Your task to perform on an android device: toggle javascript in the chrome app Image 0: 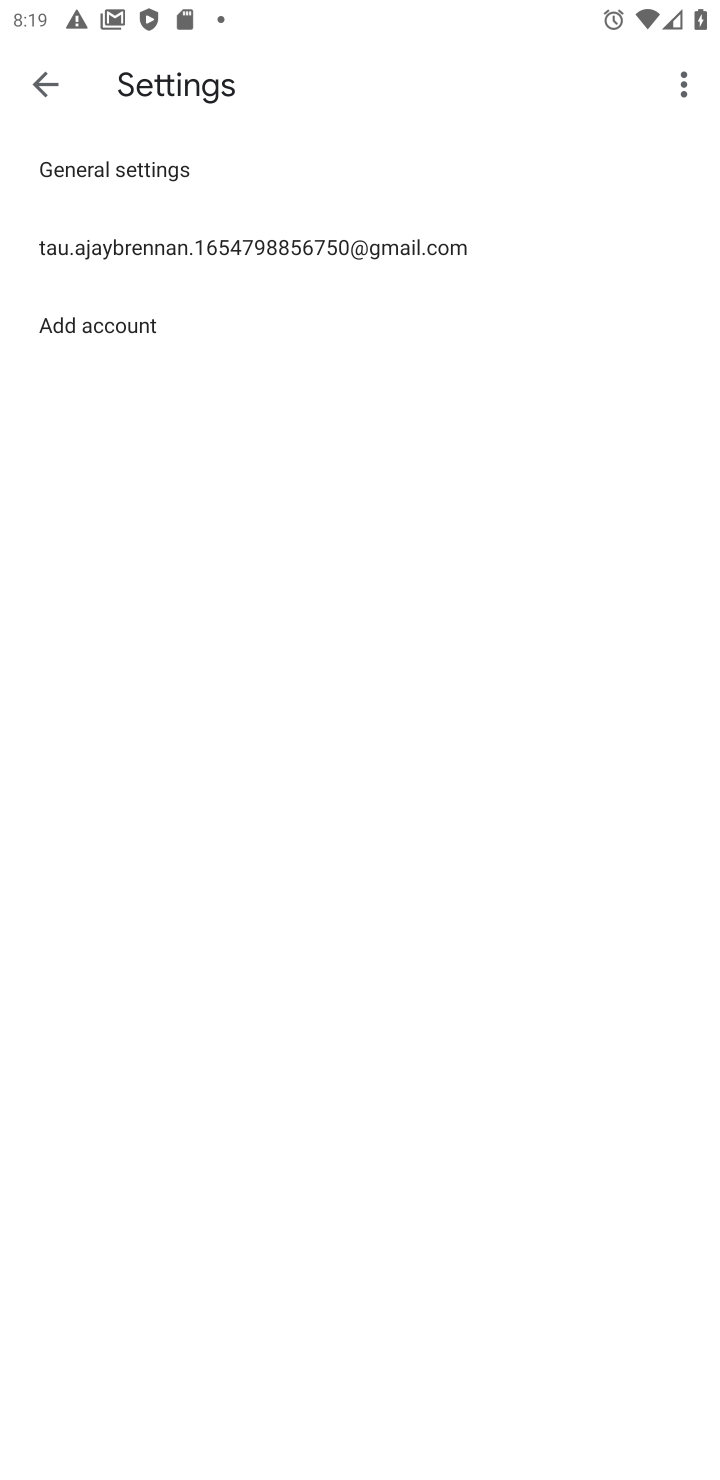
Step 0: press home button
Your task to perform on an android device: toggle javascript in the chrome app Image 1: 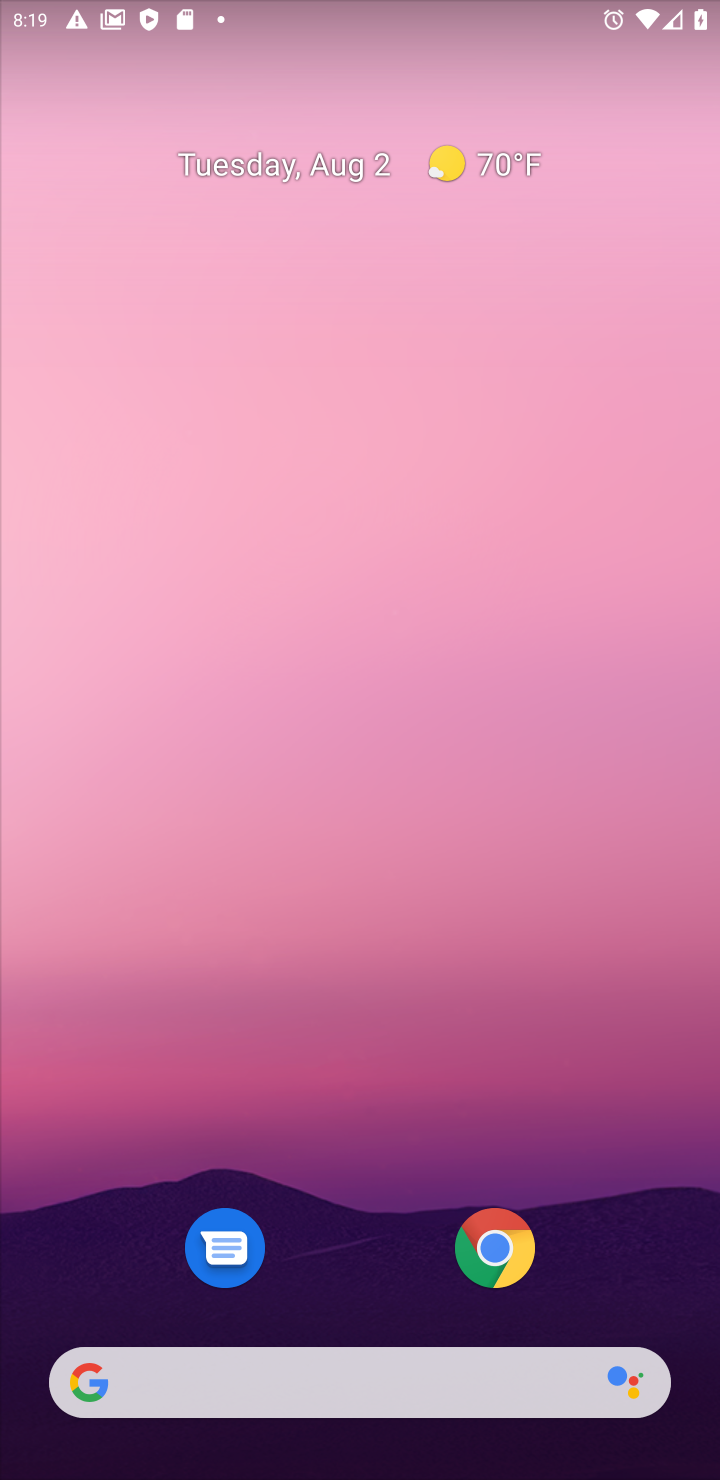
Step 1: drag from (399, 1099) to (516, 103)
Your task to perform on an android device: toggle javascript in the chrome app Image 2: 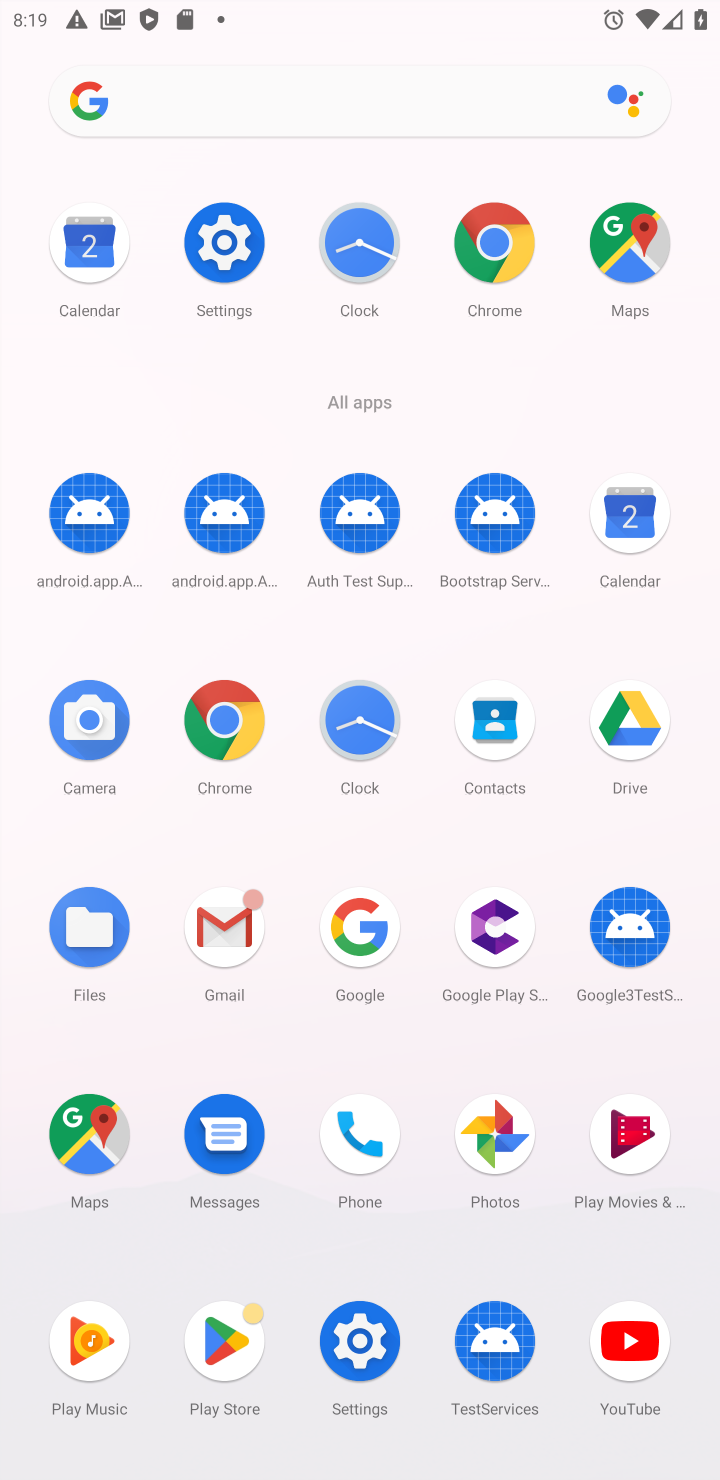
Step 2: click (232, 711)
Your task to perform on an android device: toggle javascript in the chrome app Image 3: 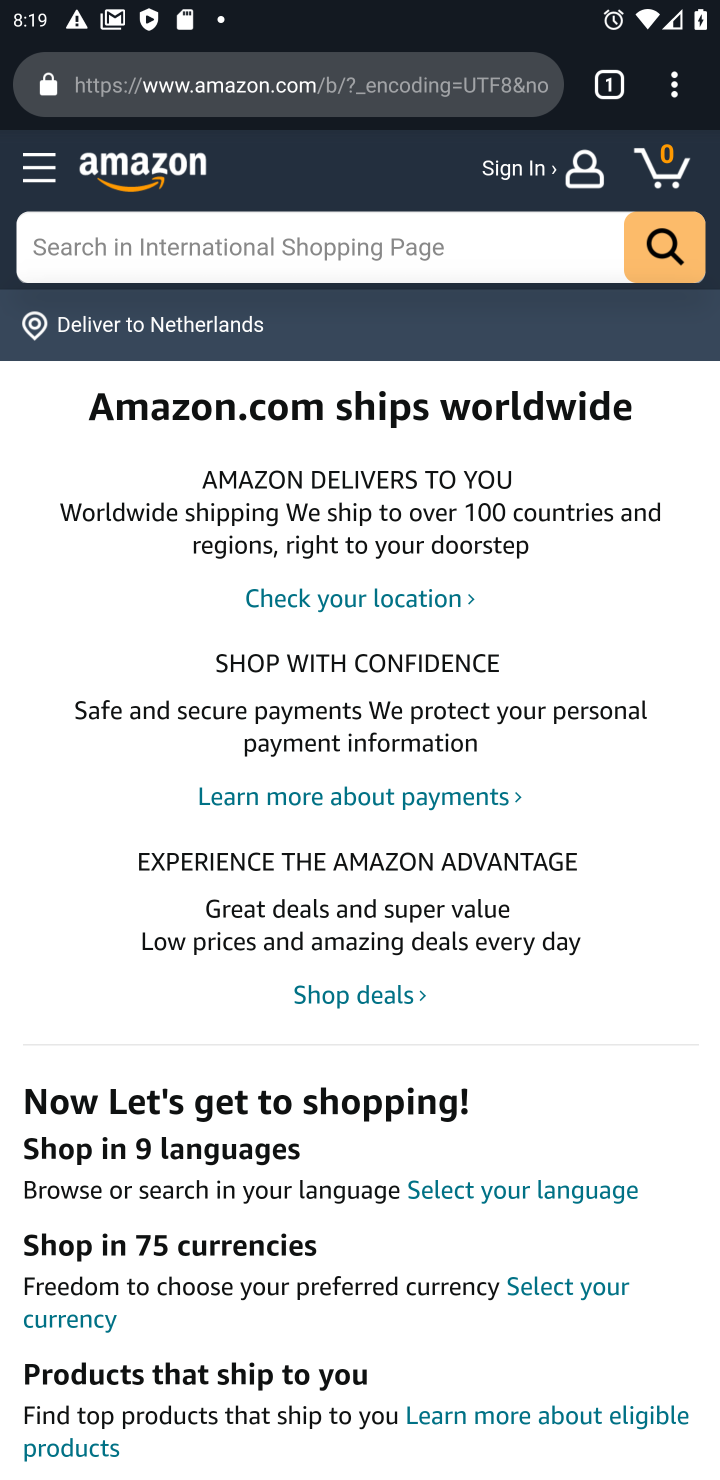
Step 3: drag from (671, 78) to (379, 1097)
Your task to perform on an android device: toggle javascript in the chrome app Image 4: 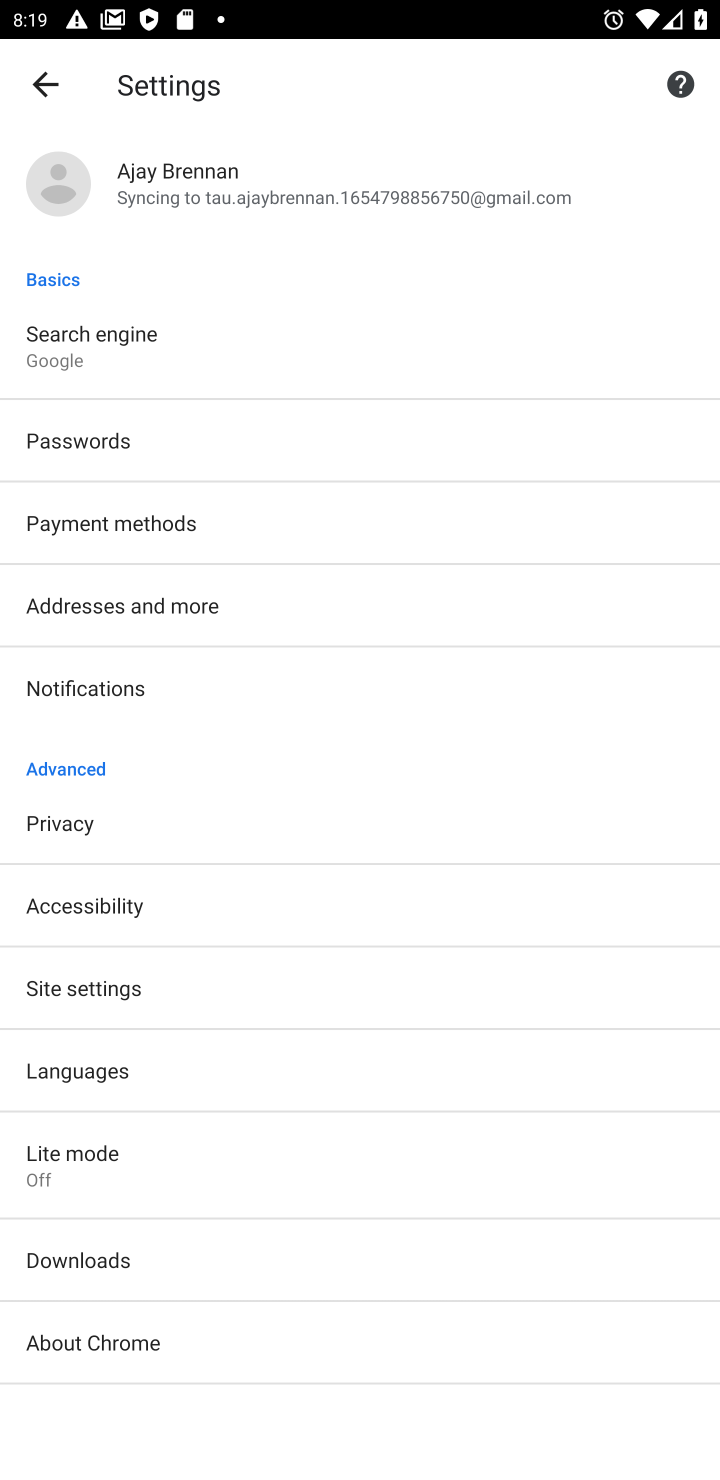
Step 4: click (114, 993)
Your task to perform on an android device: toggle javascript in the chrome app Image 5: 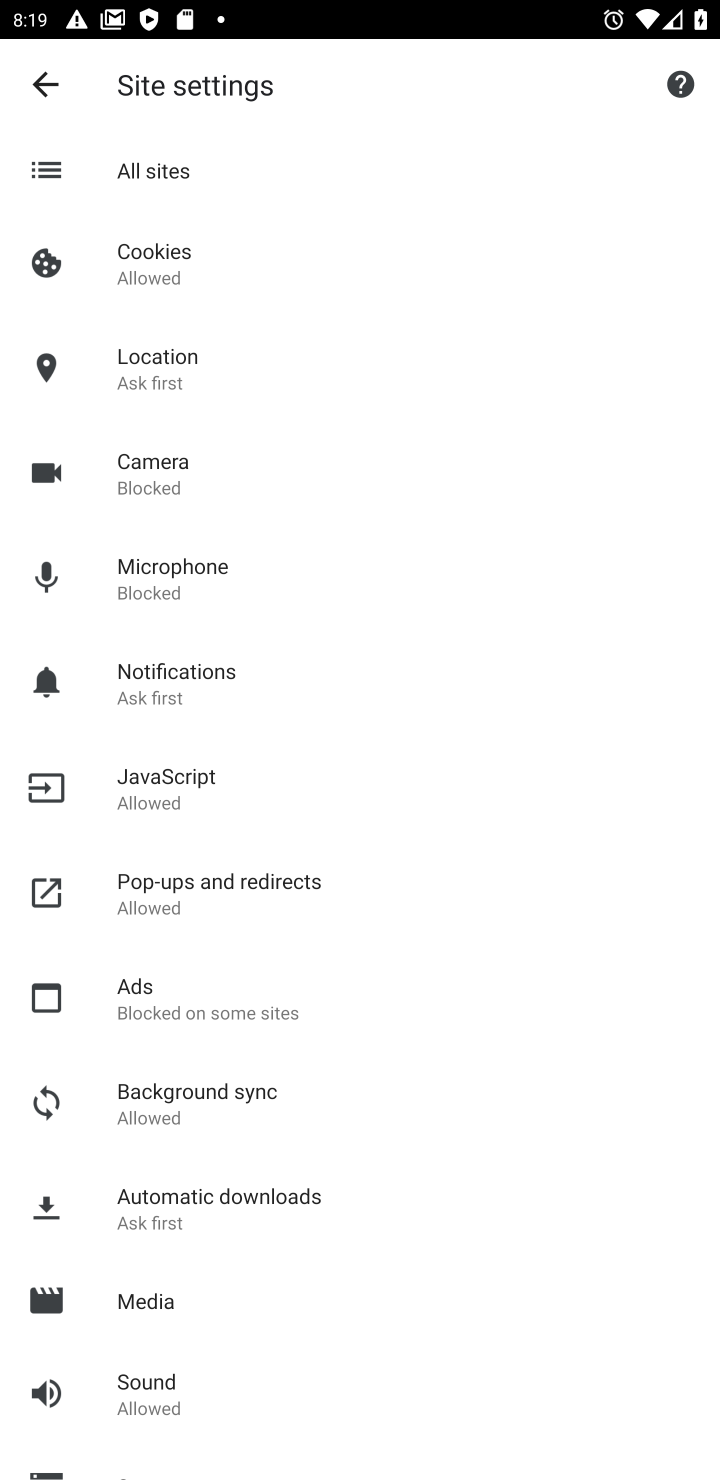
Step 5: click (153, 779)
Your task to perform on an android device: toggle javascript in the chrome app Image 6: 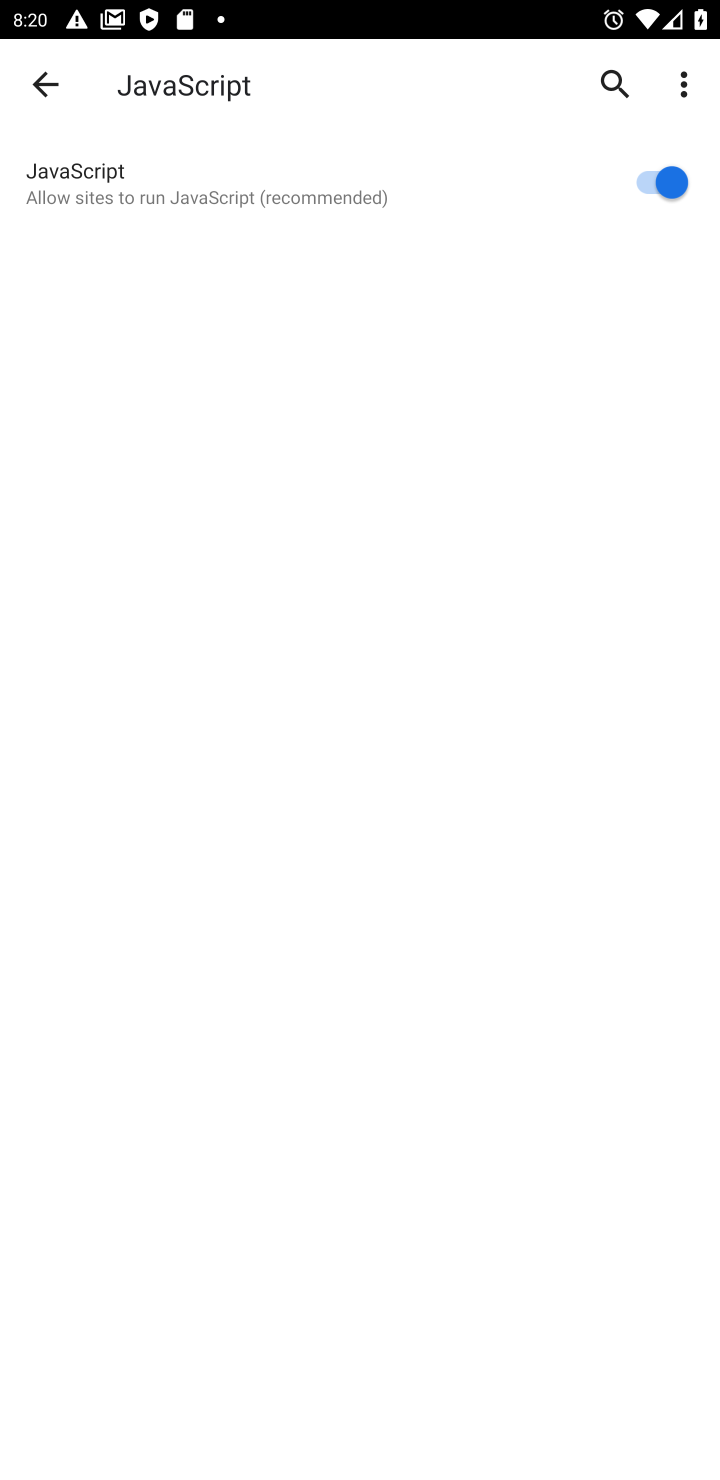
Step 6: click (356, 196)
Your task to perform on an android device: toggle javascript in the chrome app Image 7: 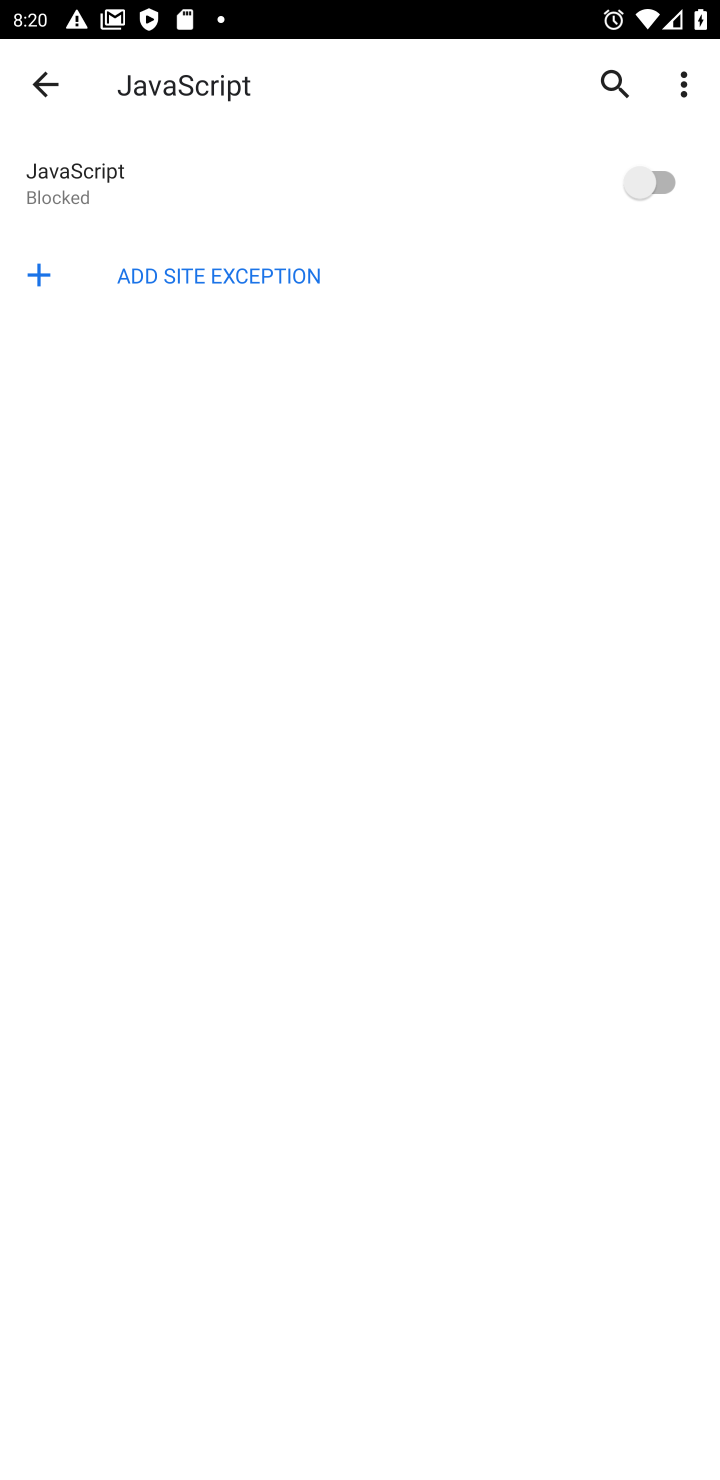
Step 7: task complete